Your task to perform on an android device: Do I have any events tomorrow? Image 0: 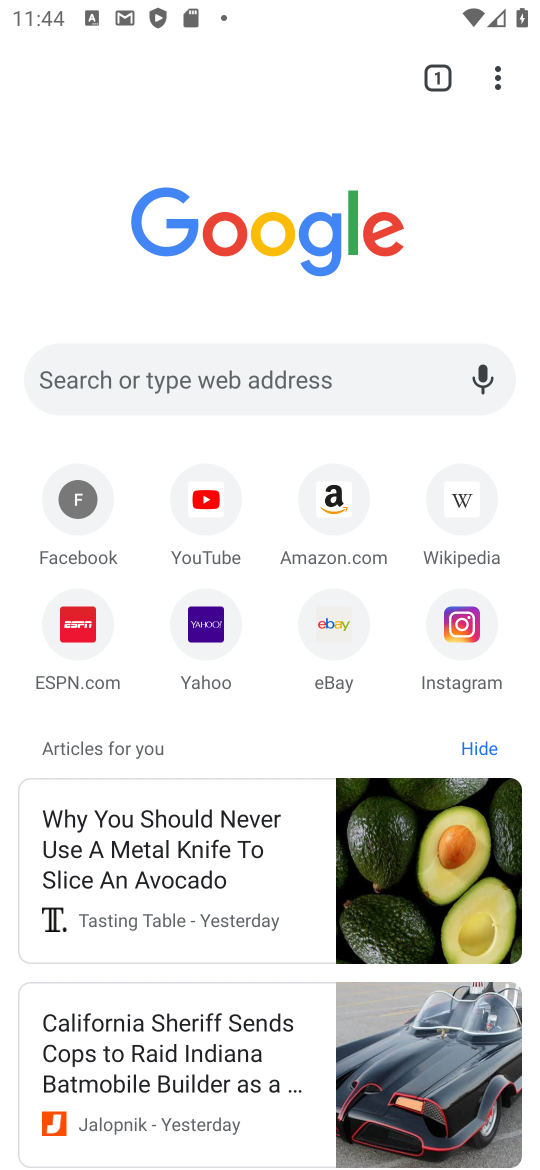
Step 0: press home button
Your task to perform on an android device: Do I have any events tomorrow? Image 1: 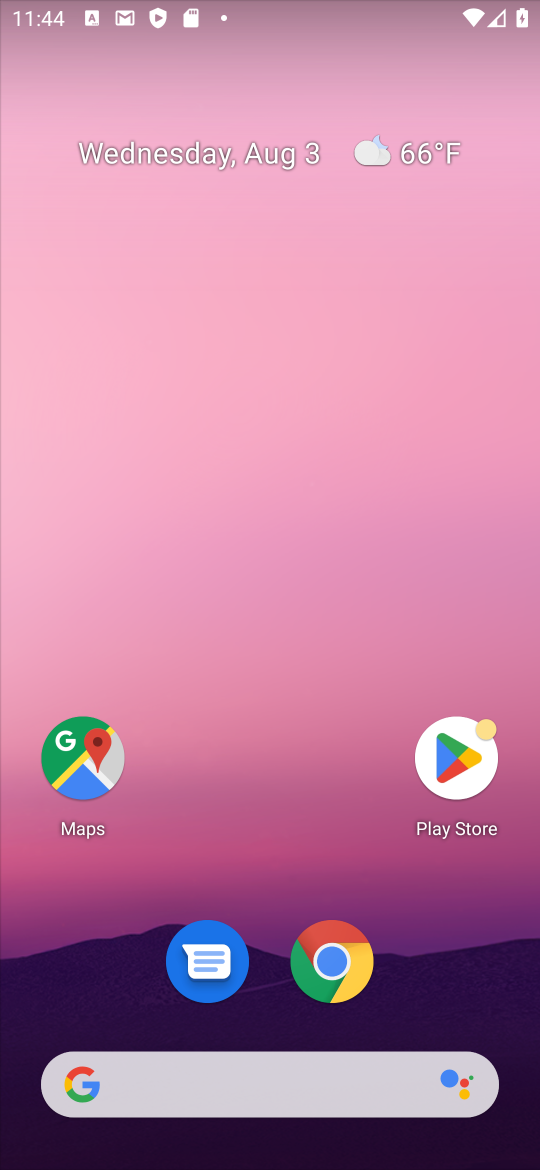
Step 1: drag from (279, 829) to (311, 26)
Your task to perform on an android device: Do I have any events tomorrow? Image 2: 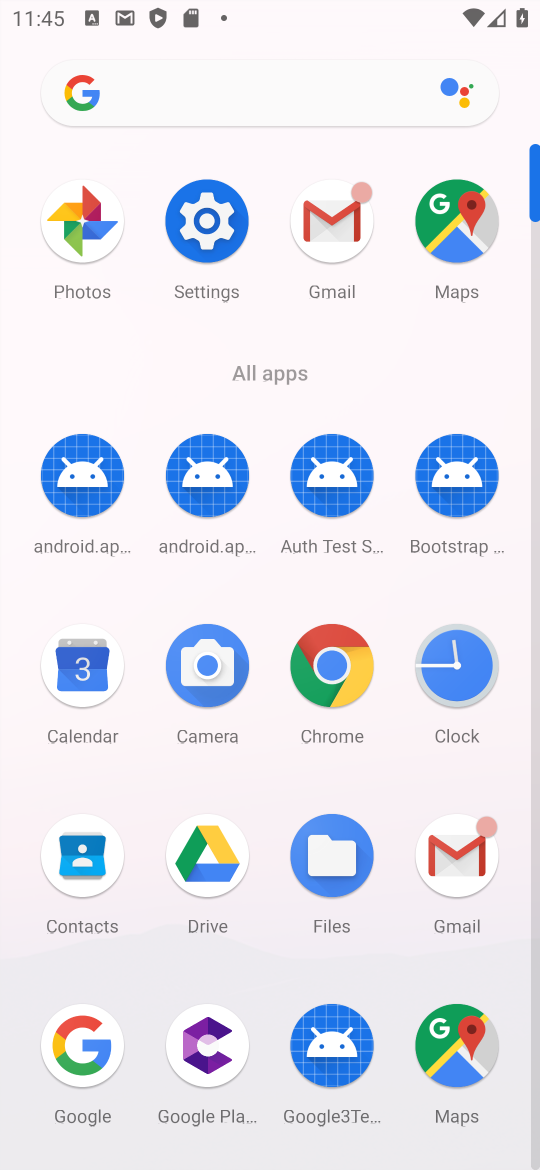
Step 2: click (98, 676)
Your task to perform on an android device: Do I have any events tomorrow? Image 3: 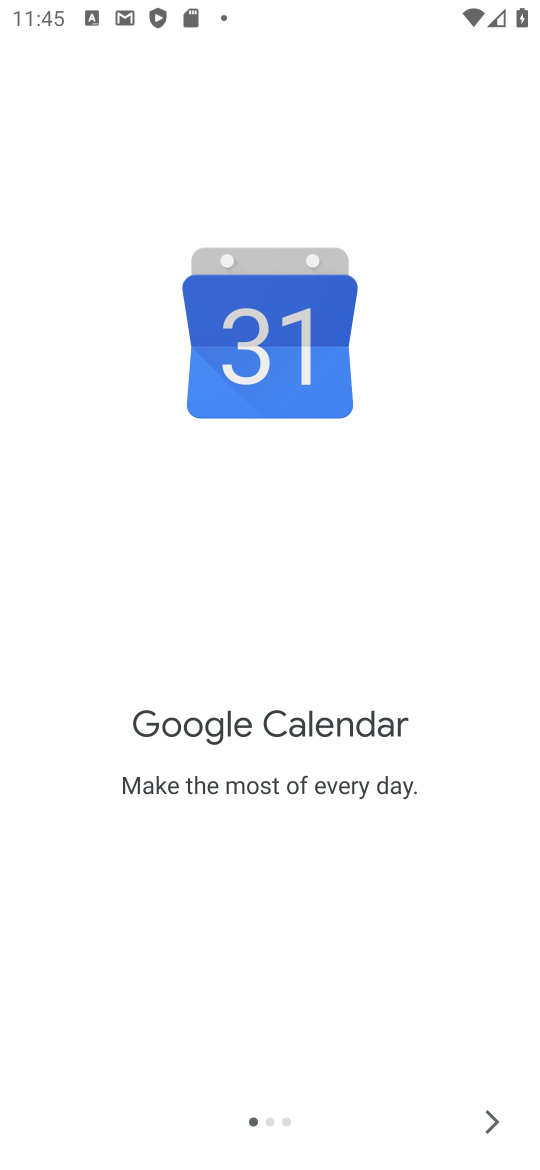
Step 3: click (500, 1122)
Your task to perform on an android device: Do I have any events tomorrow? Image 4: 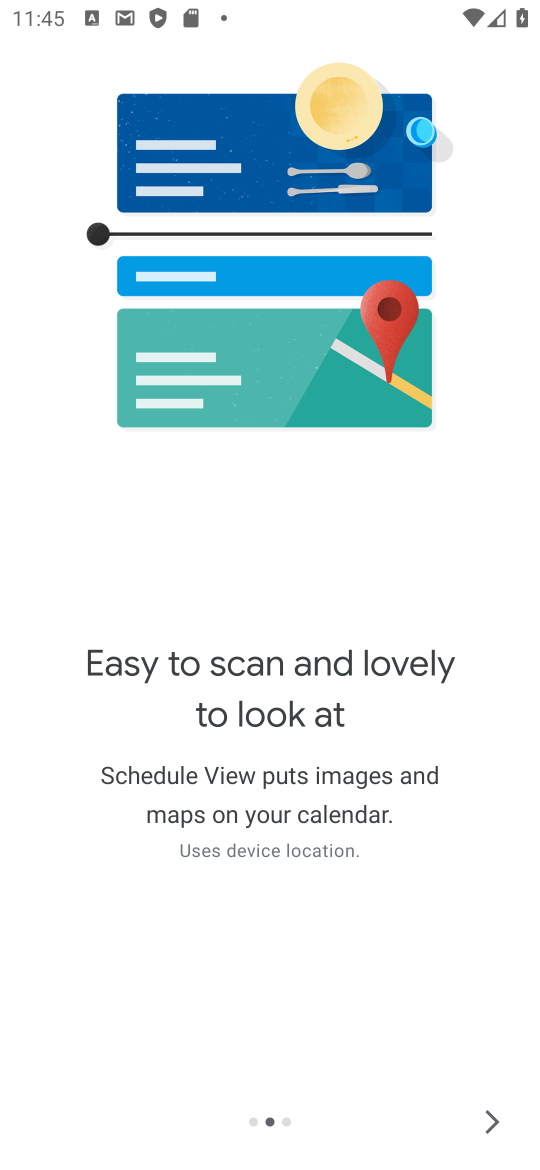
Step 4: click (500, 1120)
Your task to perform on an android device: Do I have any events tomorrow? Image 5: 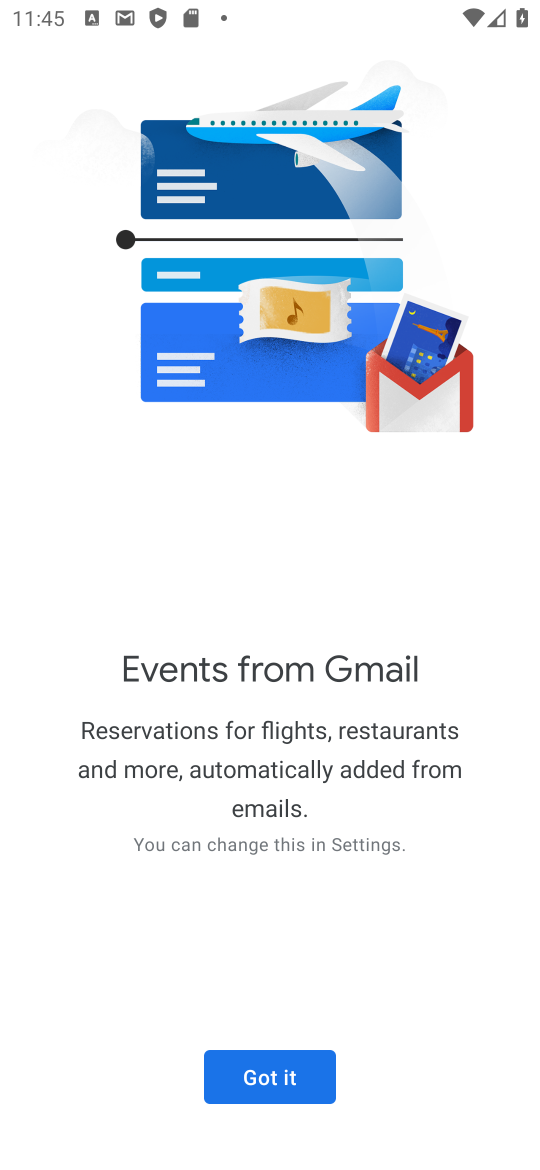
Step 5: click (294, 1069)
Your task to perform on an android device: Do I have any events tomorrow? Image 6: 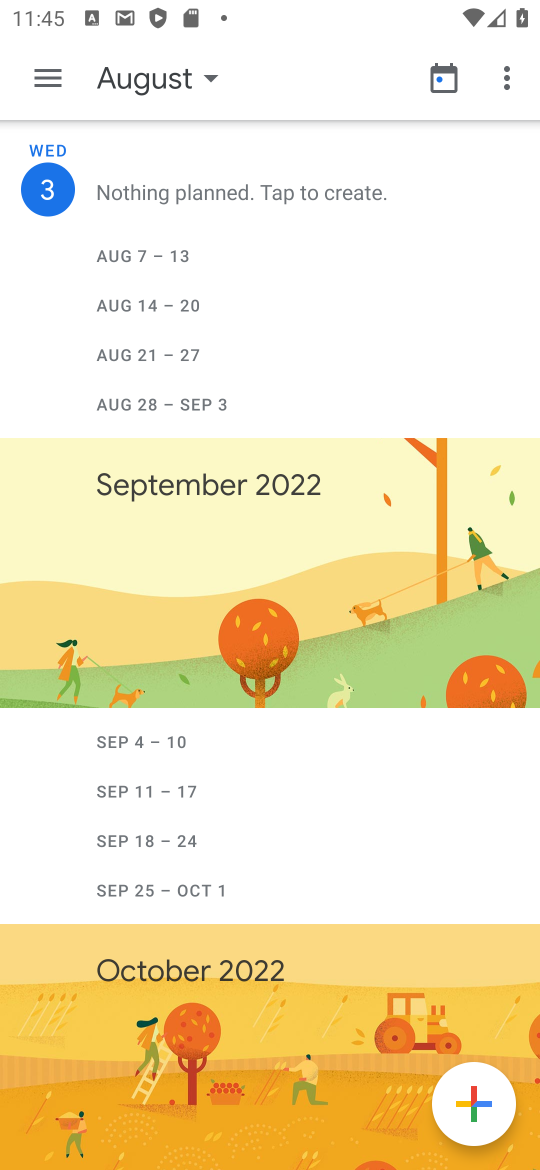
Step 6: click (61, 185)
Your task to perform on an android device: Do I have any events tomorrow? Image 7: 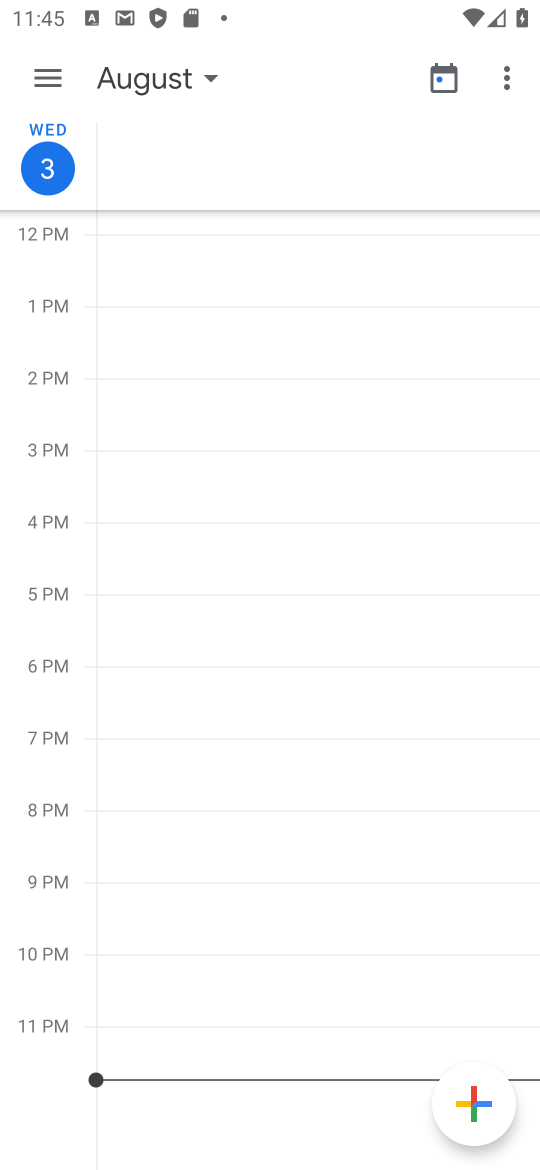
Step 7: click (49, 159)
Your task to perform on an android device: Do I have any events tomorrow? Image 8: 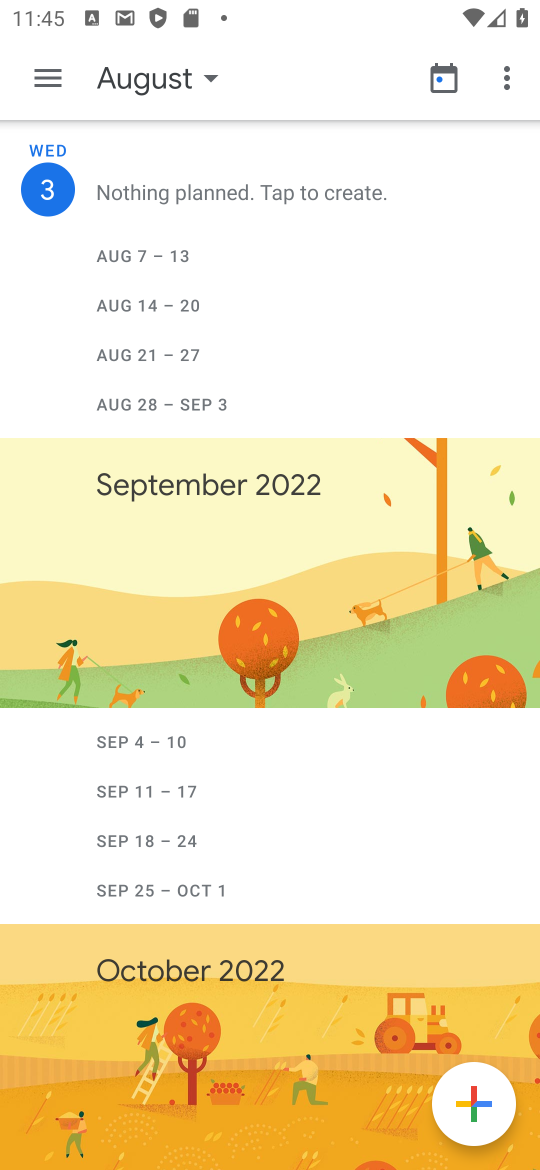
Step 8: task complete